Your task to perform on an android device: delete location history Image 0: 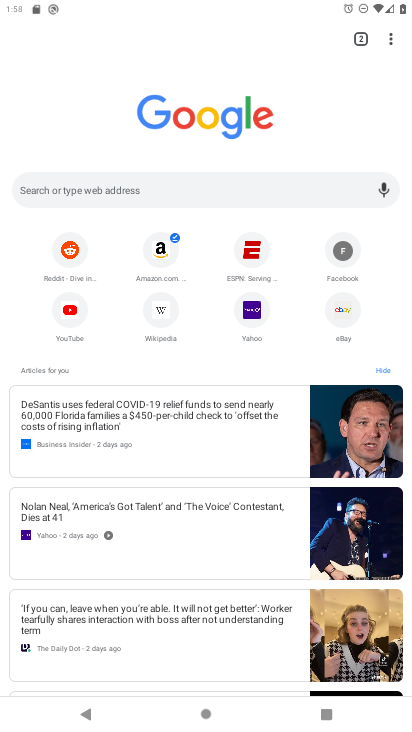
Step 0: press back button
Your task to perform on an android device: delete location history Image 1: 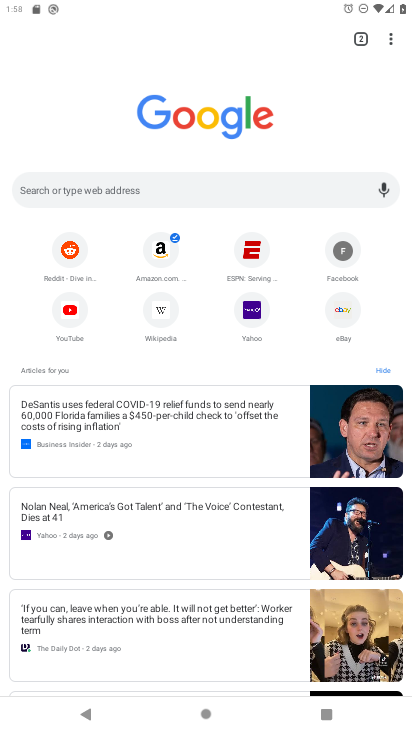
Step 1: press home button
Your task to perform on an android device: delete location history Image 2: 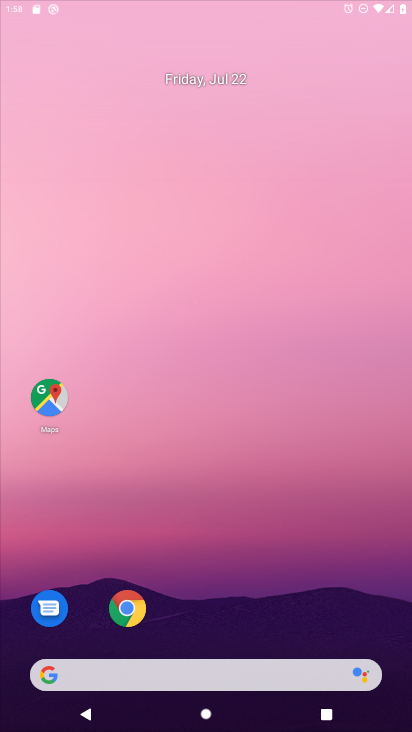
Step 2: drag from (382, 634) to (223, 19)
Your task to perform on an android device: delete location history Image 3: 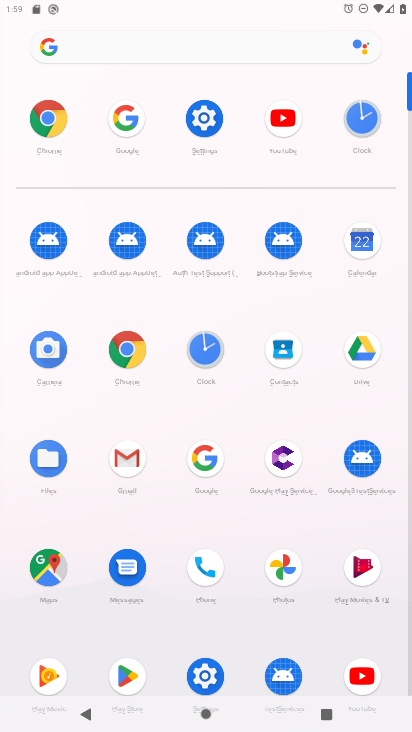
Step 3: click (214, 671)
Your task to perform on an android device: delete location history Image 4: 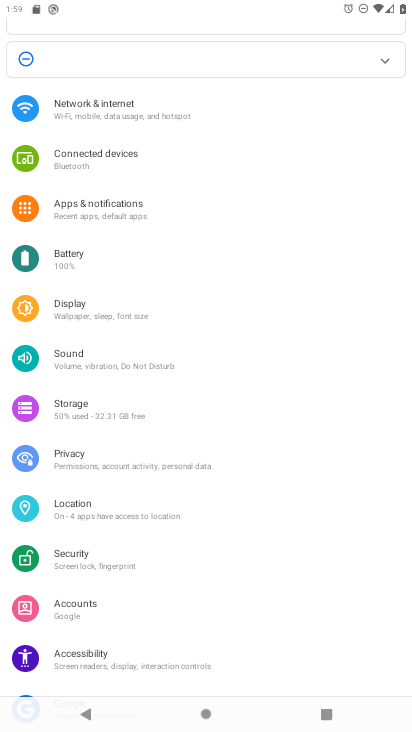
Step 4: click (78, 515)
Your task to perform on an android device: delete location history Image 5: 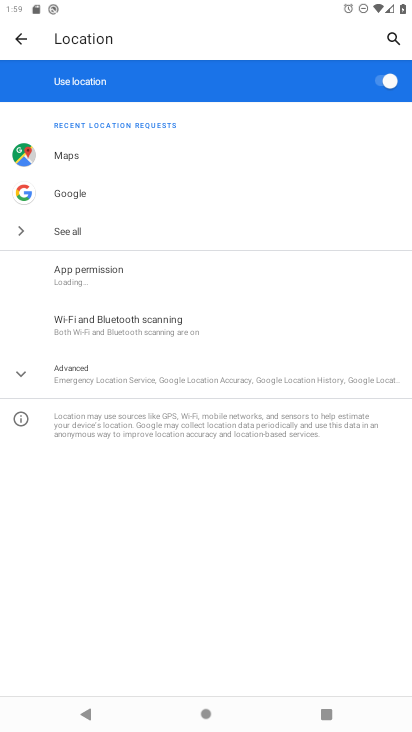
Step 5: click (64, 385)
Your task to perform on an android device: delete location history Image 6: 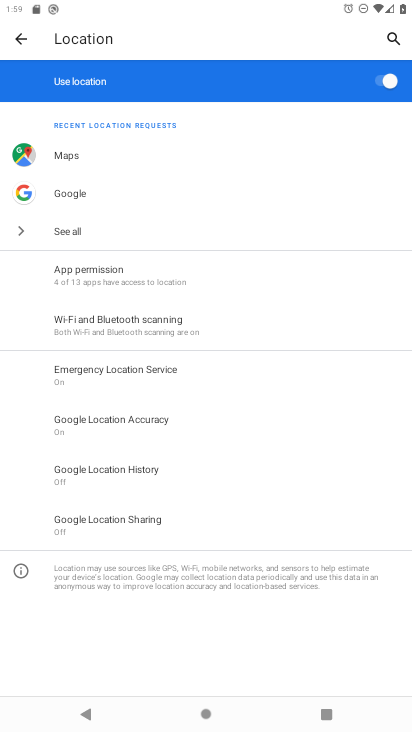
Step 6: click (159, 469)
Your task to perform on an android device: delete location history Image 7: 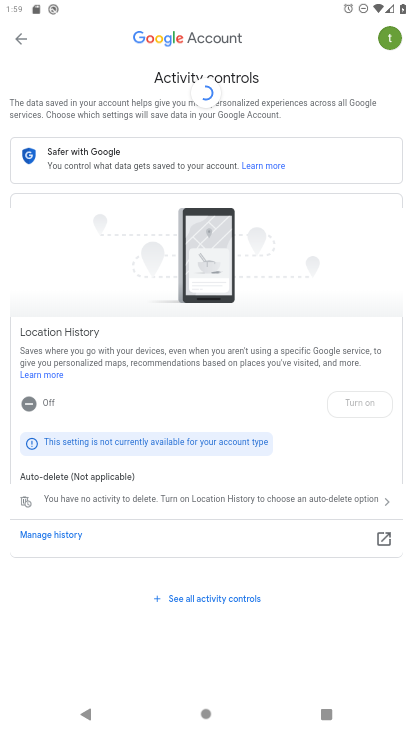
Step 7: task complete